Your task to perform on an android device: toggle translation in the chrome app Image 0: 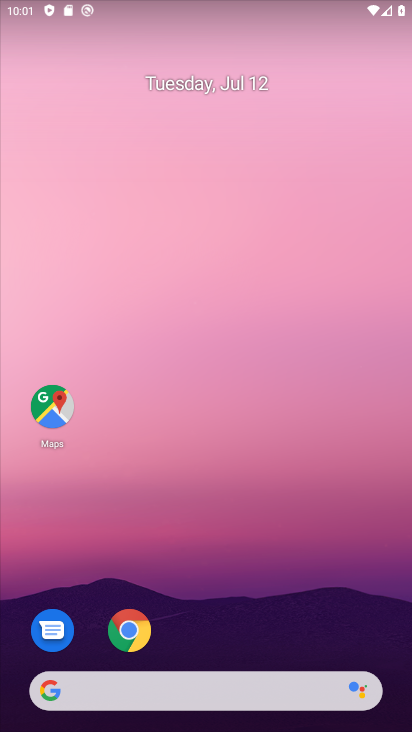
Step 0: click (126, 641)
Your task to perform on an android device: toggle translation in the chrome app Image 1: 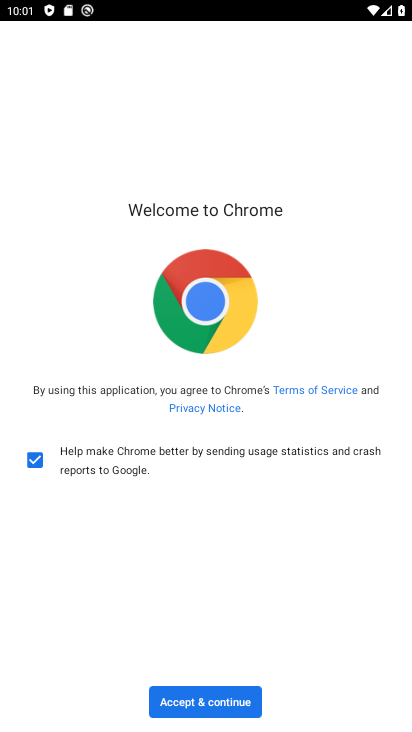
Step 1: click (204, 700)
Your task to perform on an android device: toggle translation in the chrome app Image 2: 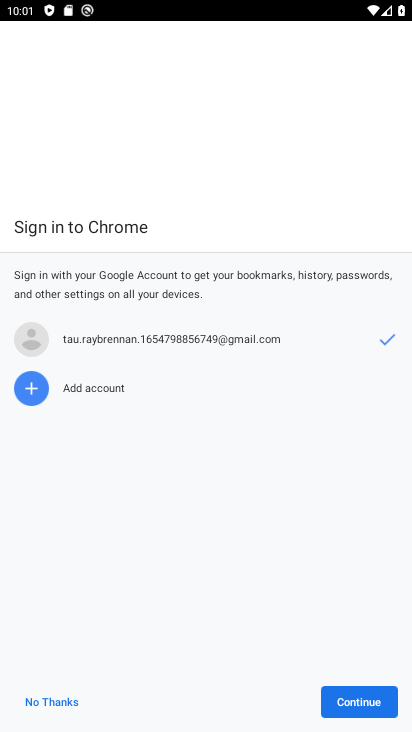
Step 2: click (393, 708)
Your task to perform on an android device: toggle translation in the chrome app Image 3: 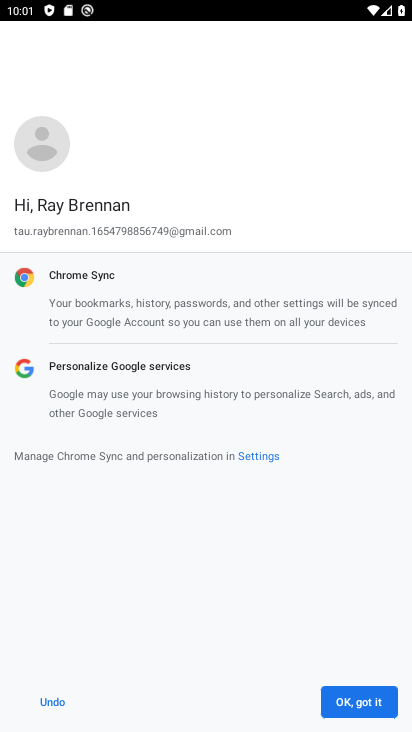
Step 3: click (368, 703)
Your task to perform on an android device: toggle translation in the chrome app Image 4: 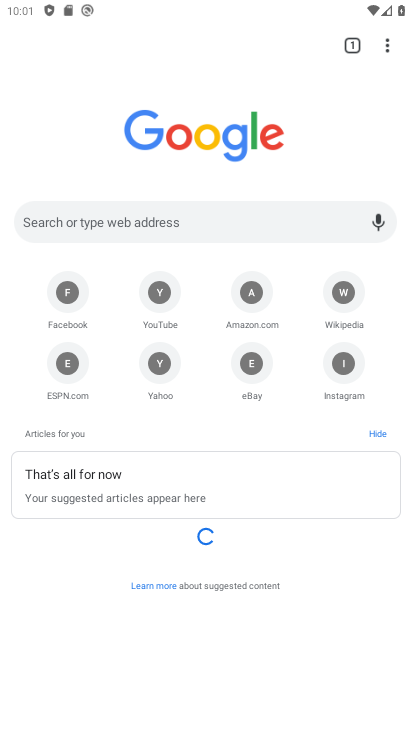
Step 4: click (385, 34)
Your task to perform on an android device: toggle translation in the chrome app Image 5: 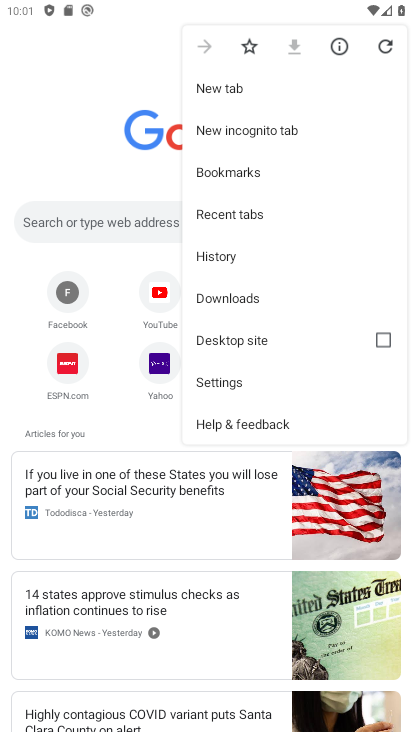
Step 5: click (218, 384)
Your task to perform on an android device: toggle translation in the chrome app Image 6: 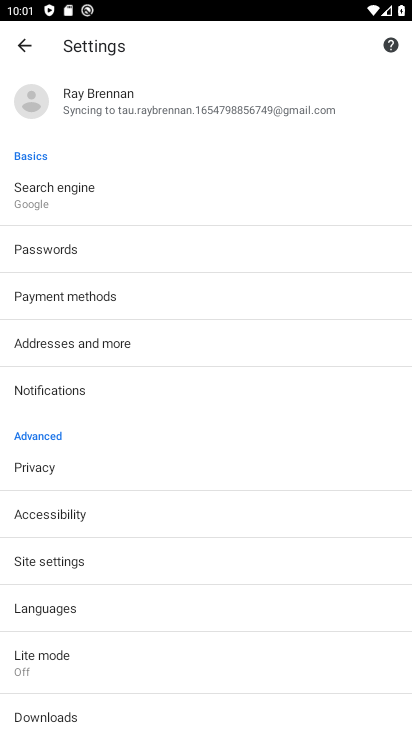
Step 6: click (164, 621)
Your task to perform on an android device: toggle translation in the chrome app Image 7: 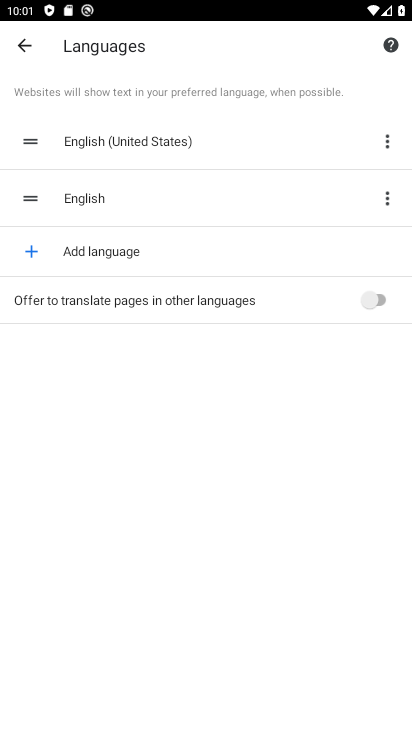
Step 7: click (366, 297)
Your task to perform on an android device: toggle translation in the chrome app Image 8: 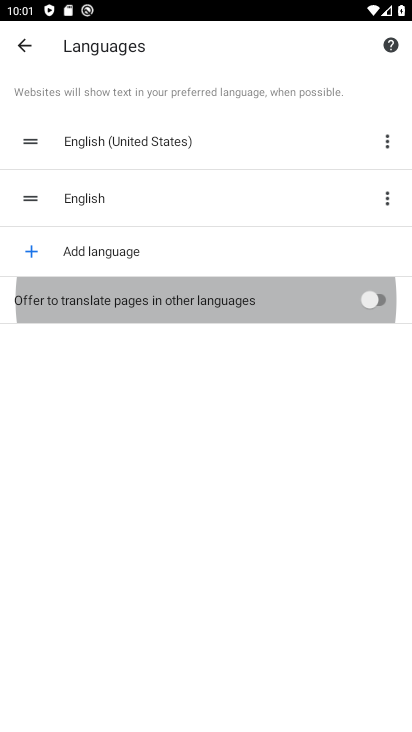
Step 8: click (366, 297)
Your task to perform on an android device: toggle translation in the chrome app Image 9: 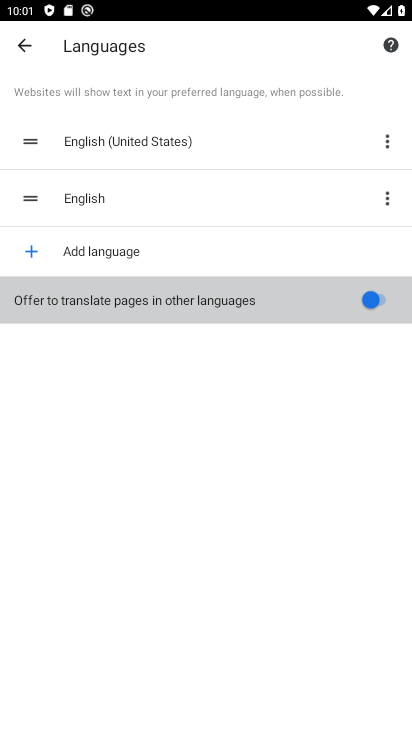
Step 9: click (366, 297)
Your task to perform on an android device: toggle translation in the chrome app Image 10: 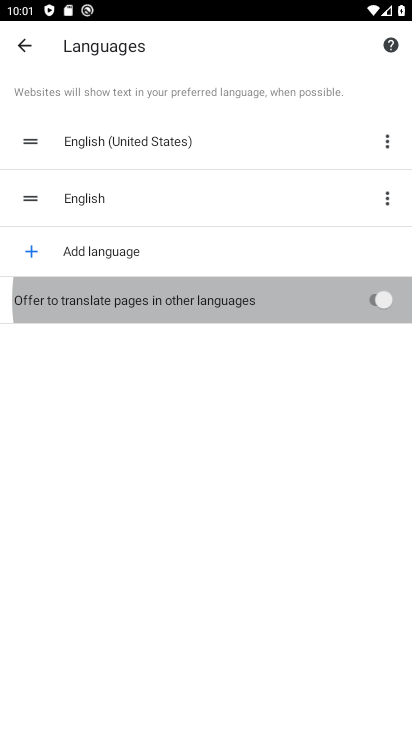
Step 10: click (366, 297)
Your task to perform on an android device: toggle translation in the chrome app Image 11: 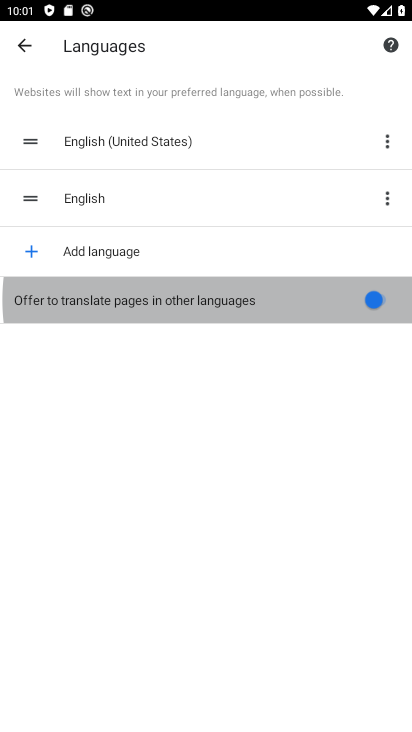
Step 11: click (366, 297)
Your task to perform on an android device: toggle translation in the chrome app Image 12: 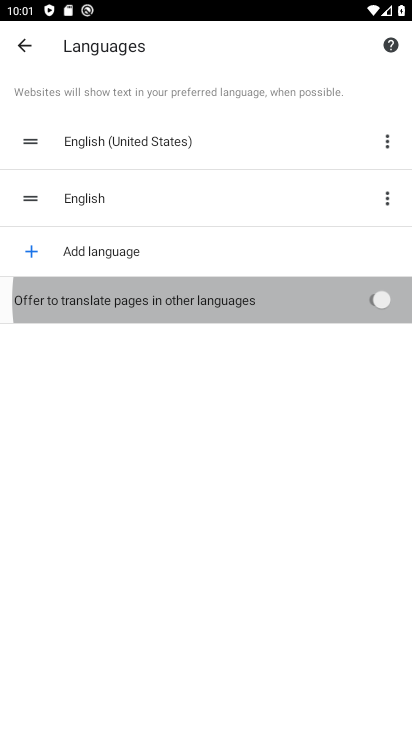
Step 12: click (366, 297)
Your task to perform on an android device: toggle translation in the chrome app Image 13: 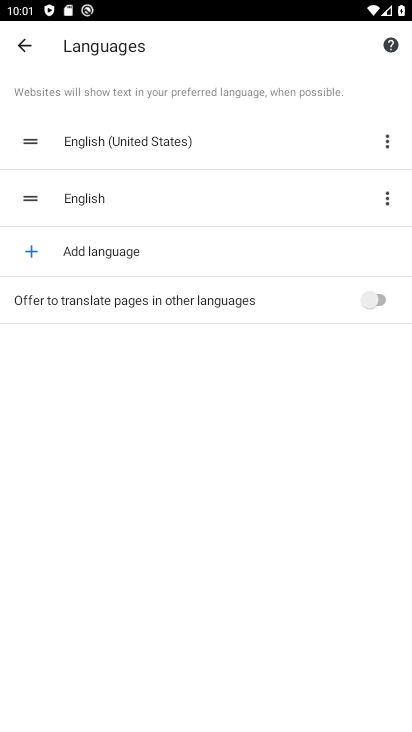
Step 13: task complete